Your task to perform on an android device: change notification settings in the gmail app Image 0: 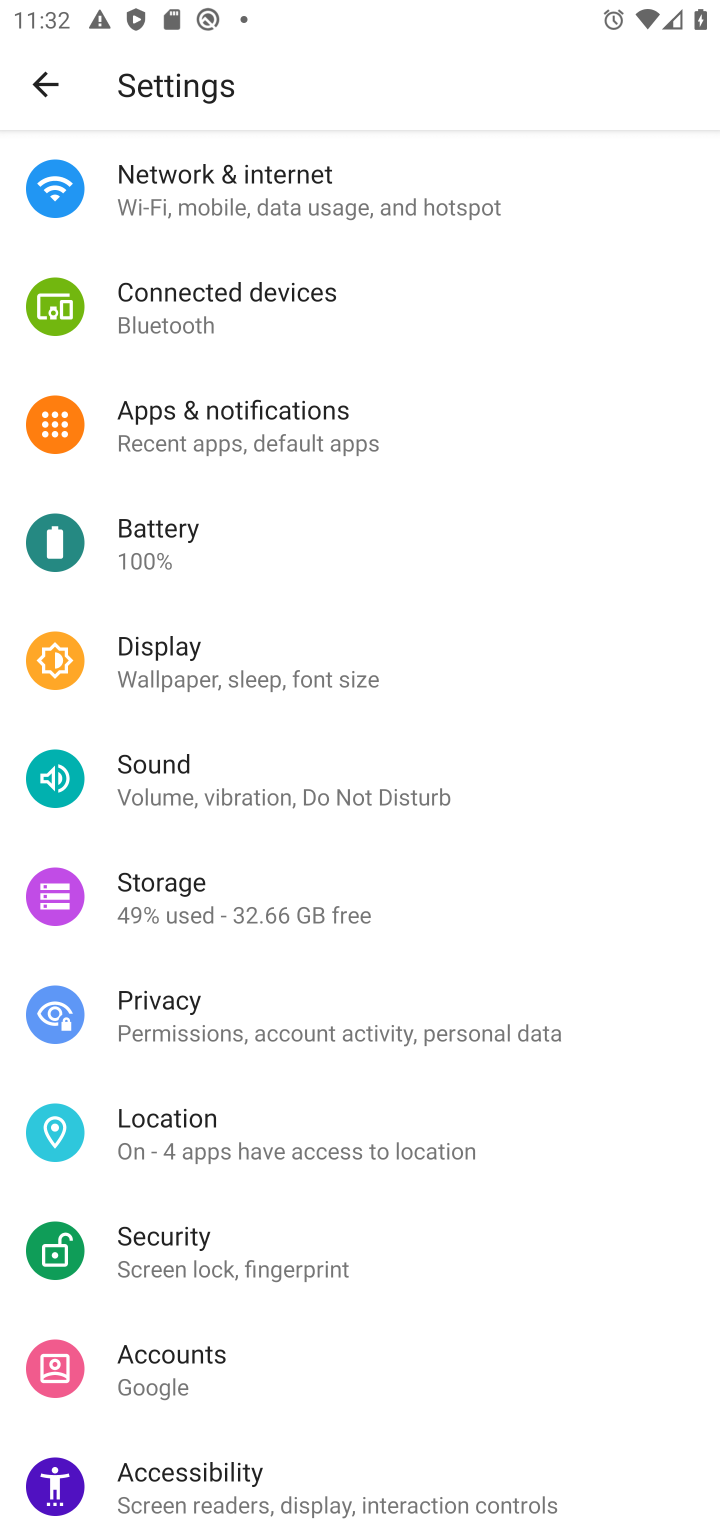
Step 0: press home button
Your task to perform on an android device: change notification settings in the gmail app Image 1: 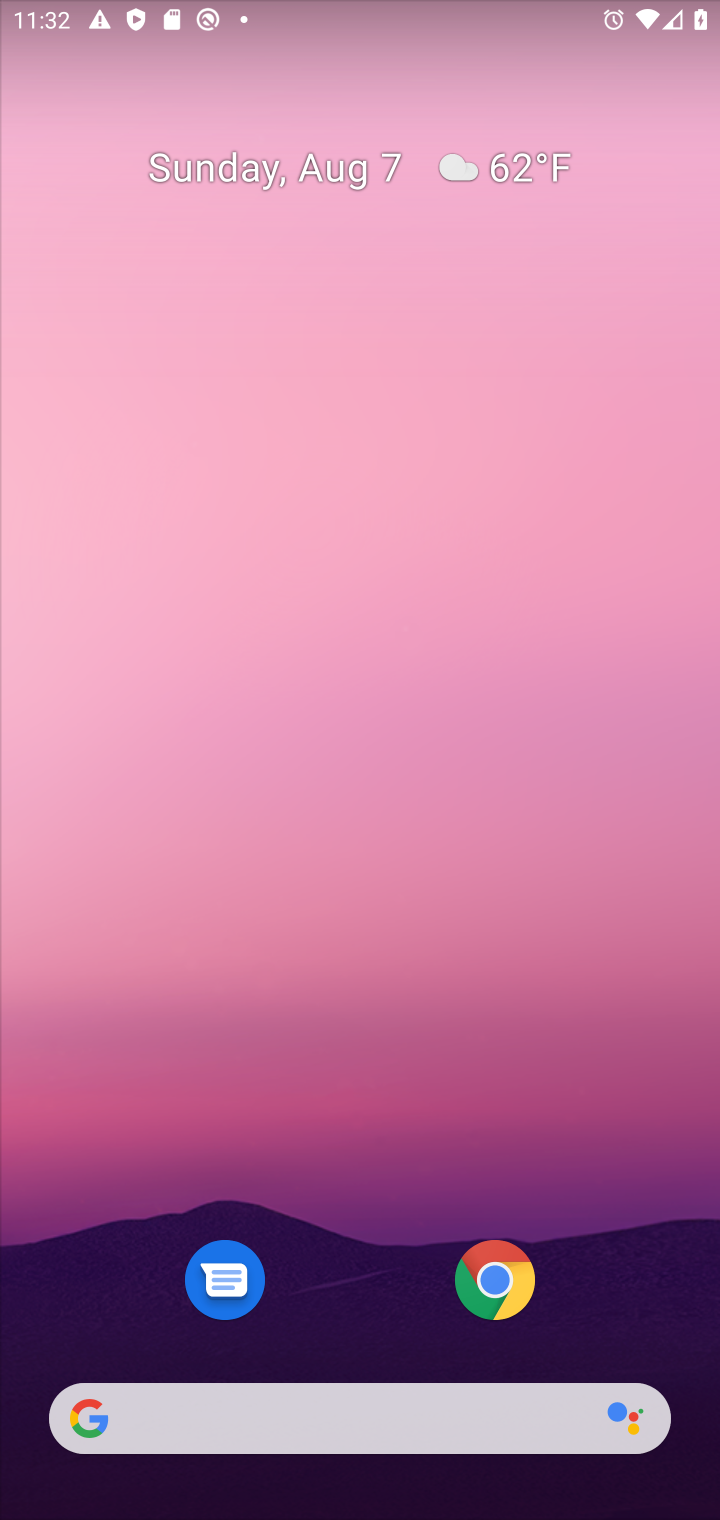
Step 1: drag from (365, 949) to (365, 309)
Your task to perform on an android device: change notification settings in the gmail app Image 2: 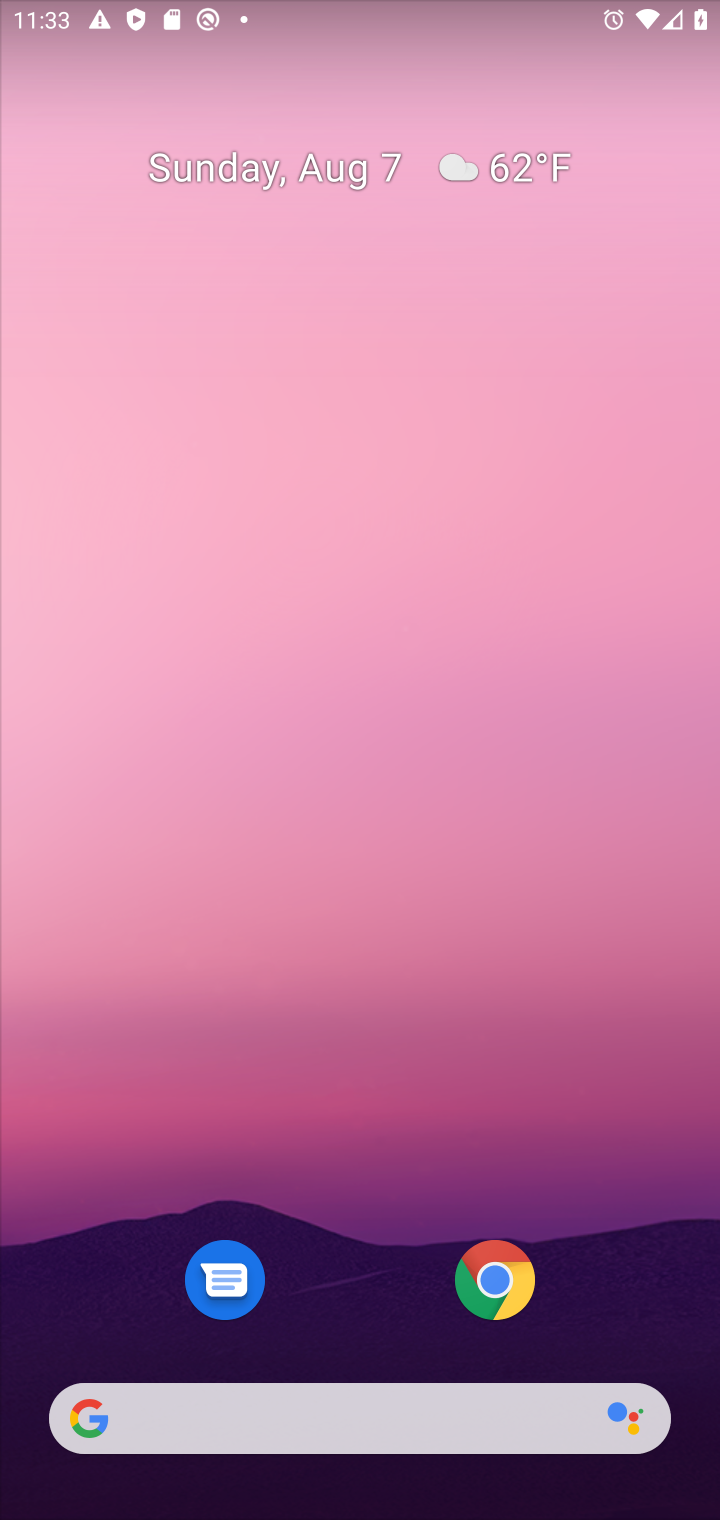
Step 2: click (426, 175)
Your task to perform on an android device: change notification settings in the gmail app Image 3: 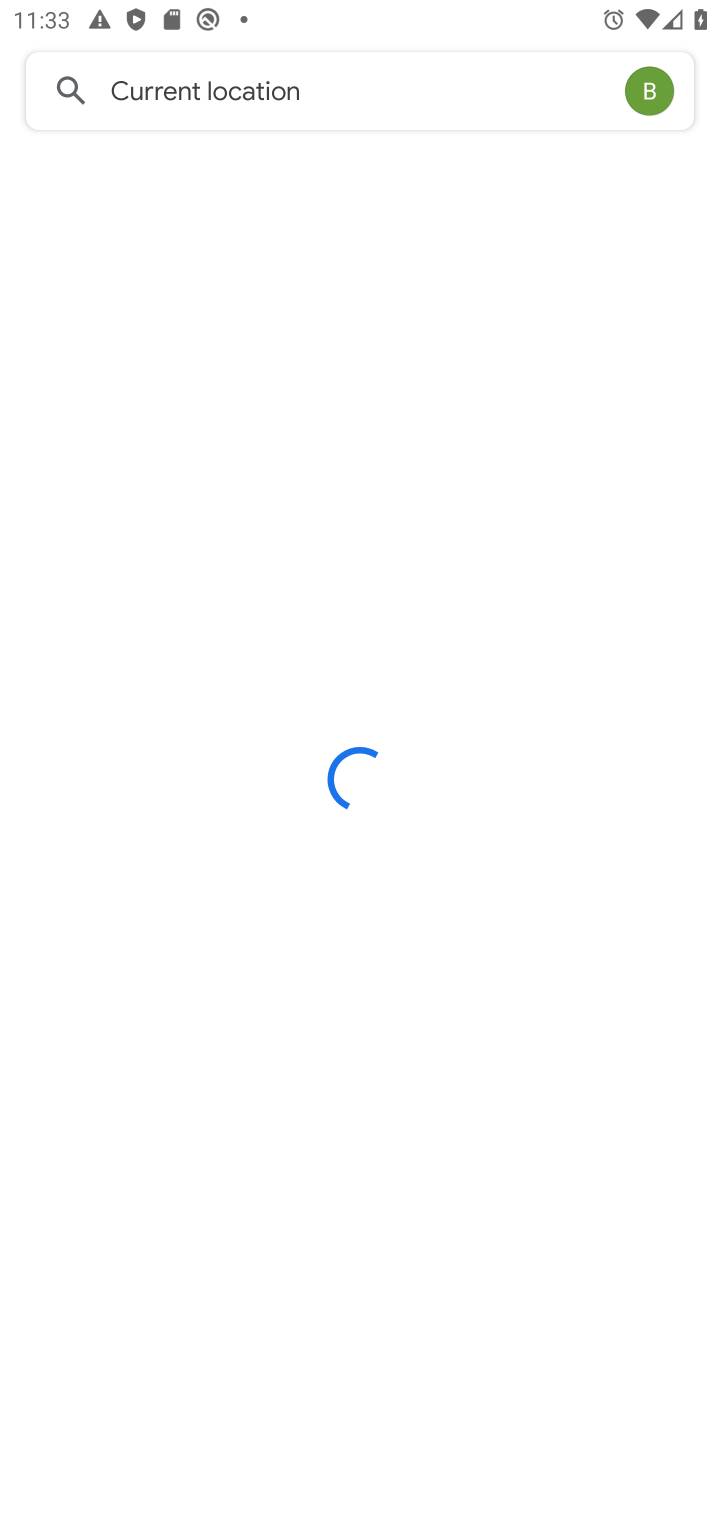
Step 3: press home button
Your task to perform on an android device: change notification settings in the gmail app Image 4: 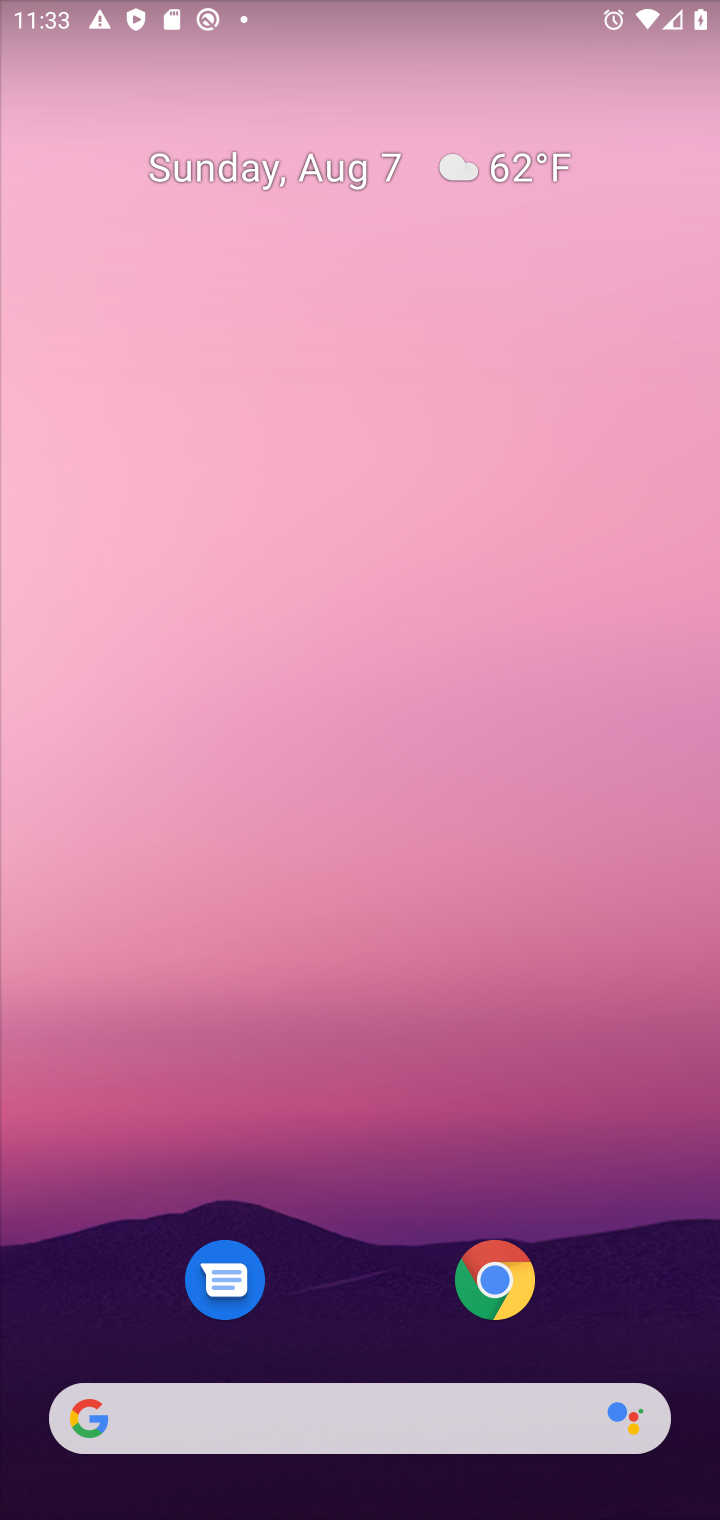
Step 4: drag from (344, 1304) to (339, 227)
Your task to perform on an android device: change notification settings in the gmail app Image 5: 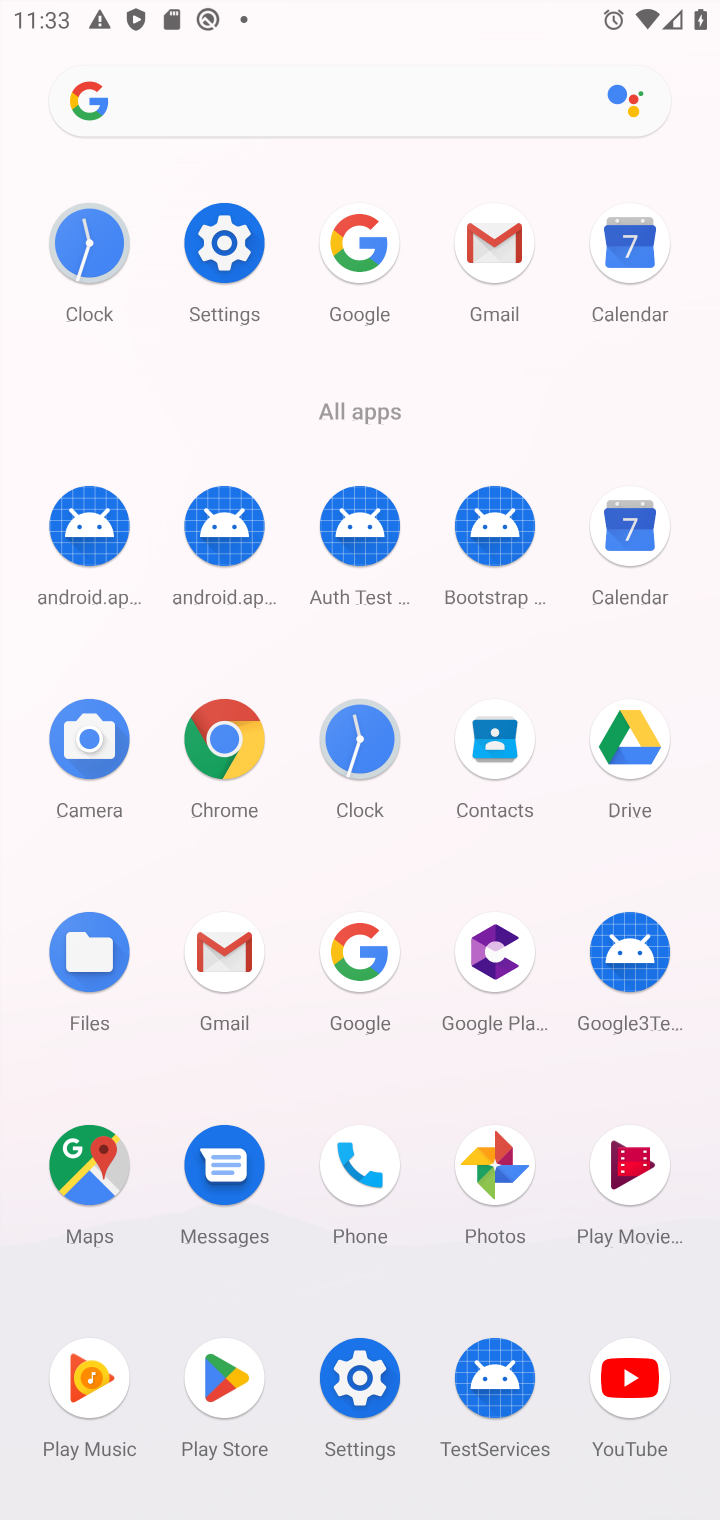
Step 5: click (211, 945)
Your task to perform on an android device: change notification settings in the gmail app Image 6: 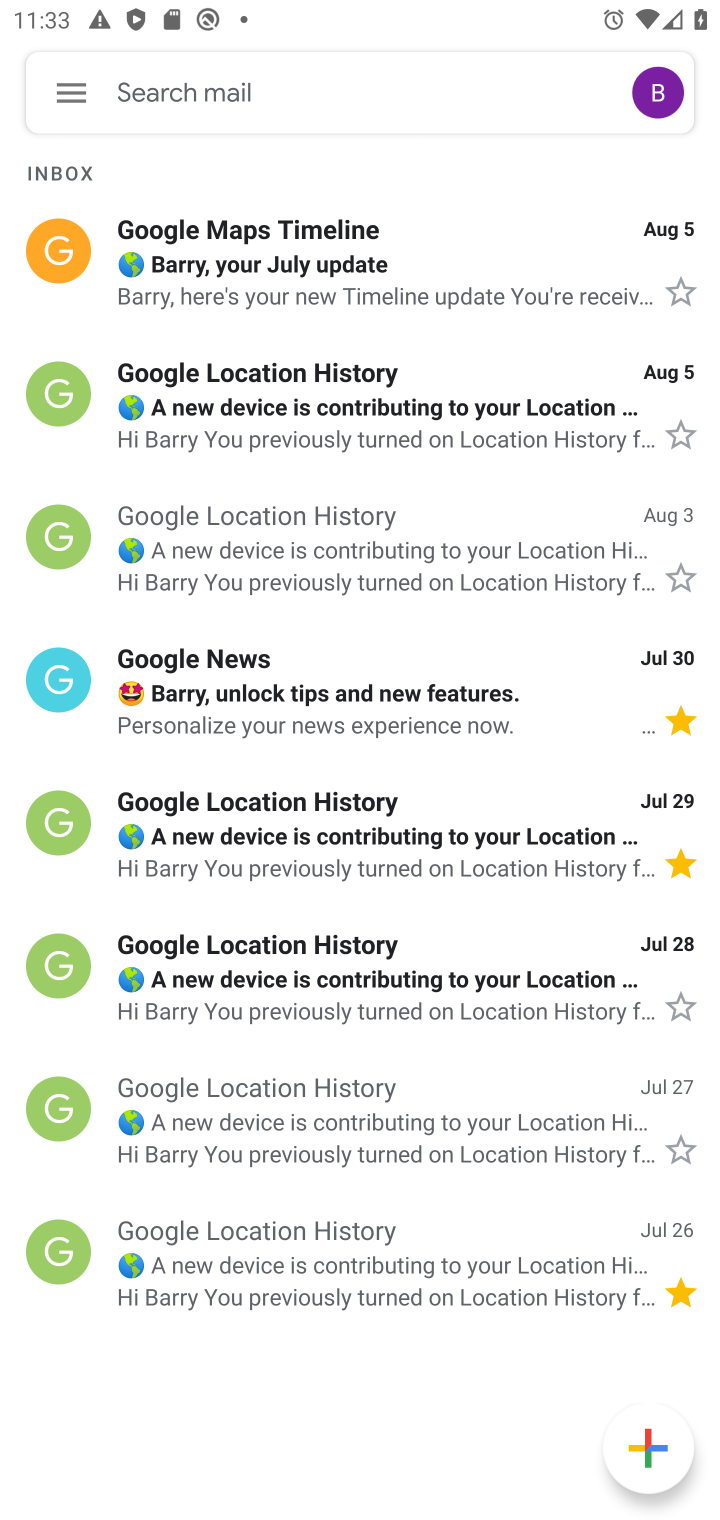
Step 6: click (63, 99)
Your task to perform on an android device: change notification settings in the gmail app Image 7: 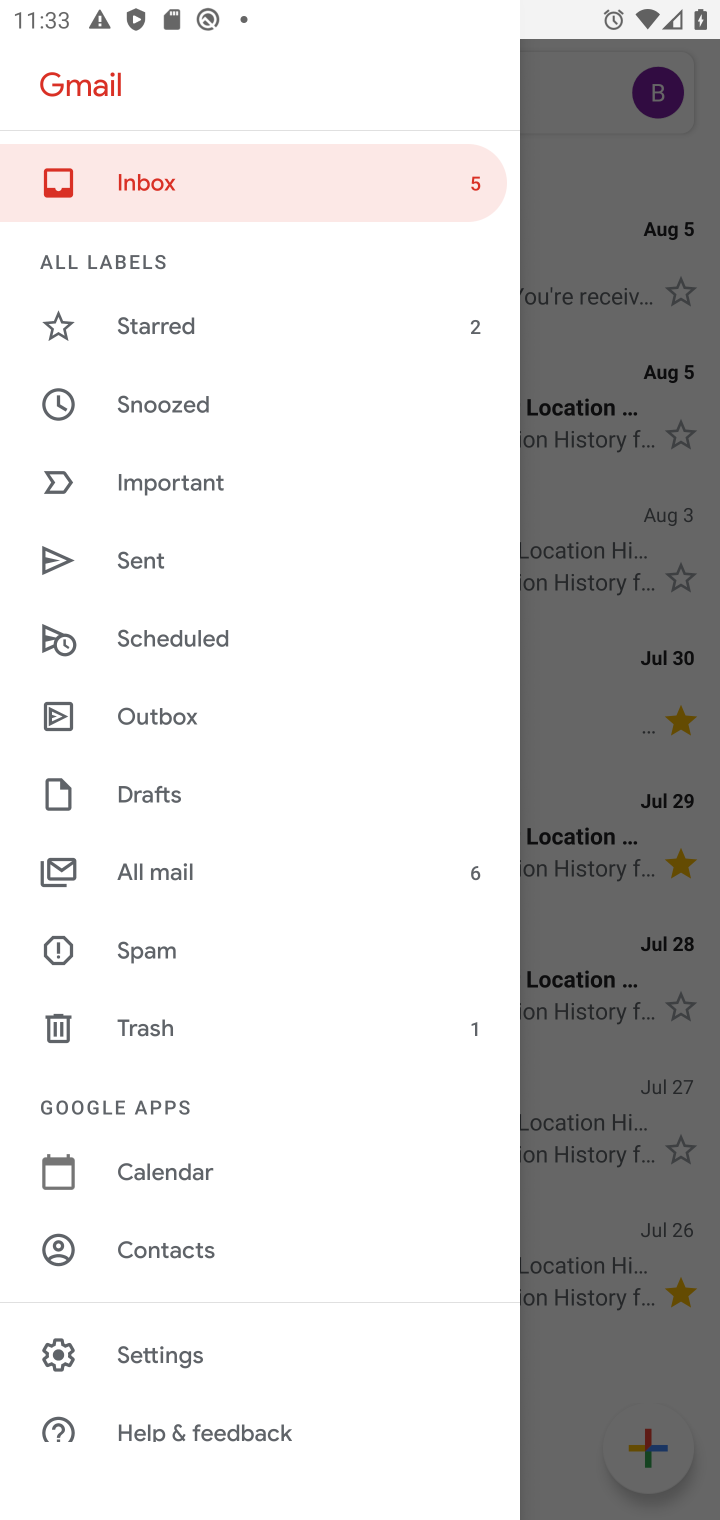
Step 7: click (139, 1353)
Your task to perform on an android device: change notification settings in the gmail app Image 8: 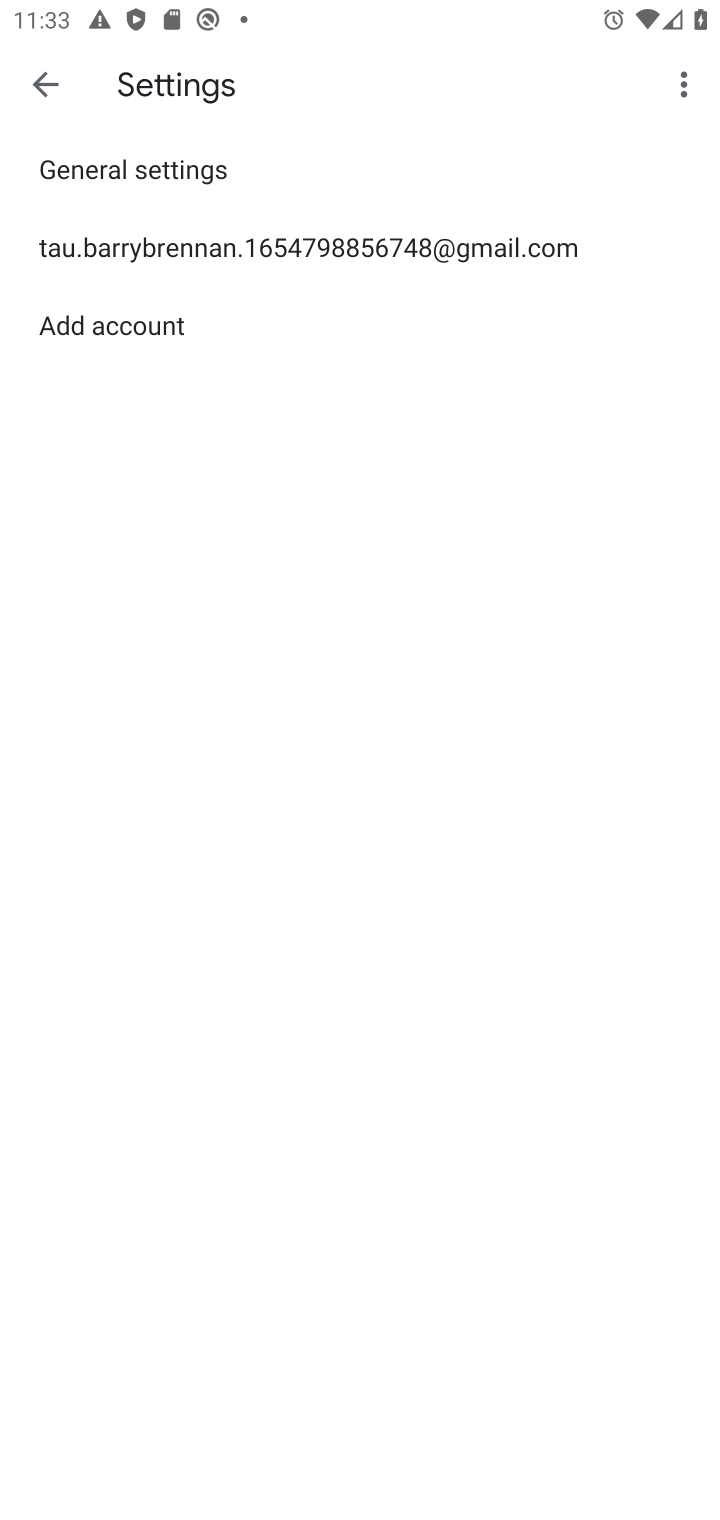
Step 8: click (367, 252)
Your task to perform on an android device: change notification settings in the gmail app Image 9: 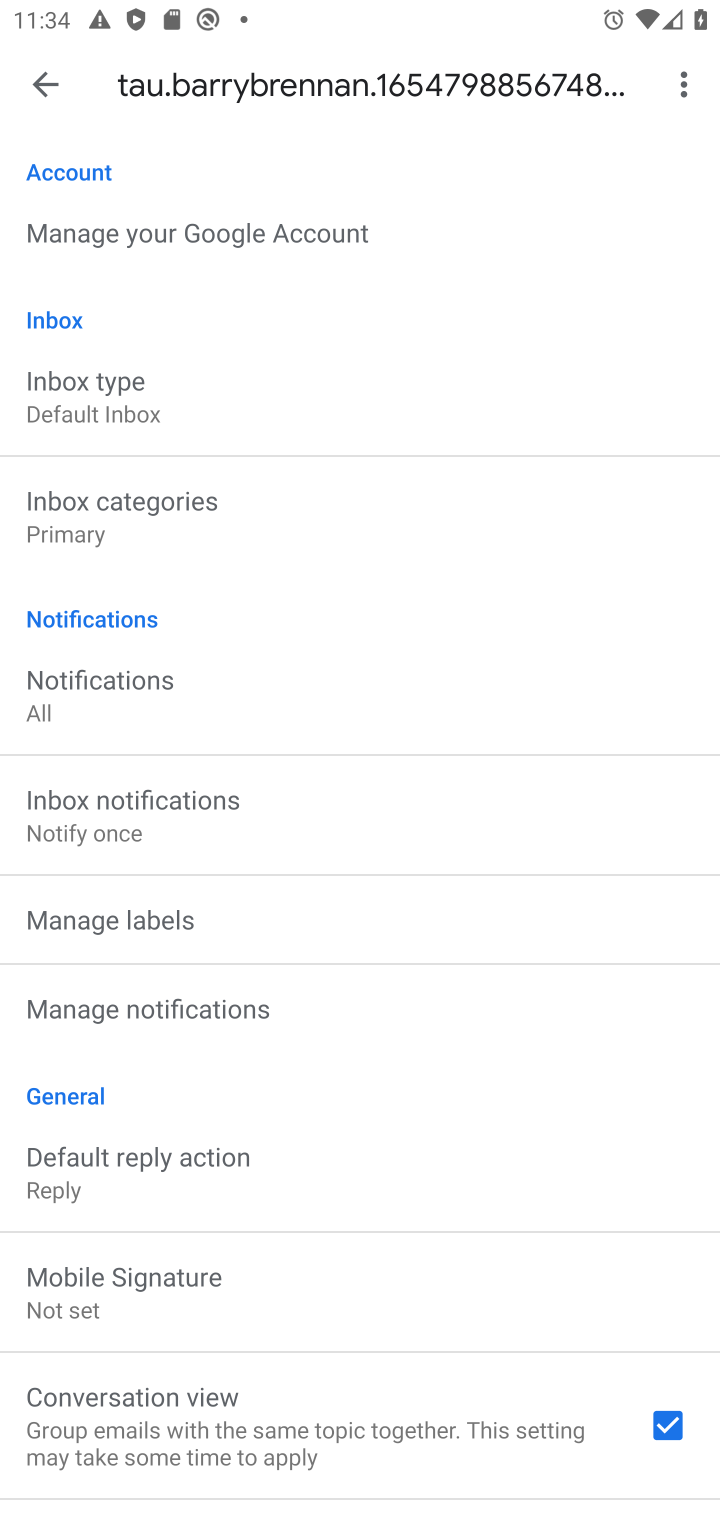
Step 9: click (85, 679)
Your task to perform on an android device: change notification settings in the gmail app Image 10: 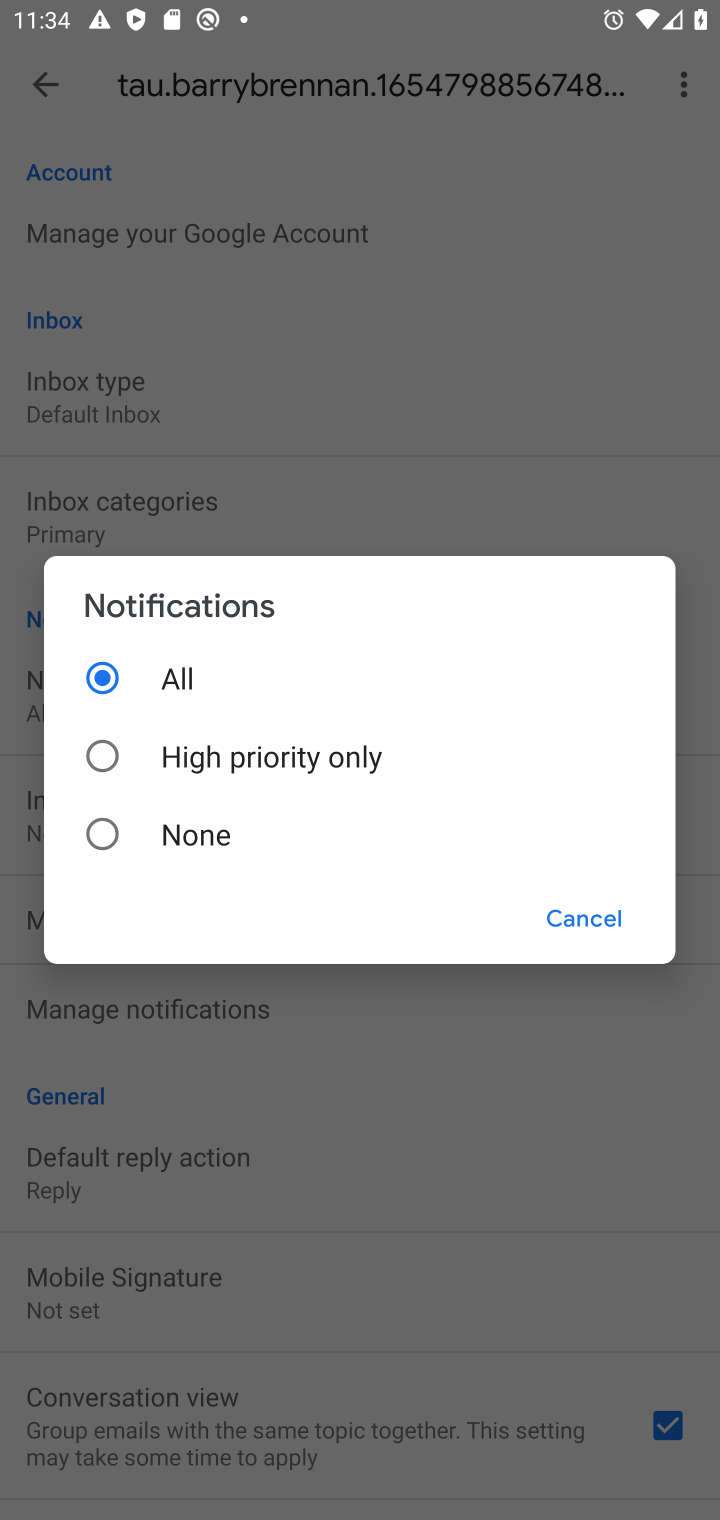
Step 10: click (103, 846)
Your task to perform on an android device: change notification settings in the gmail app Image 11: 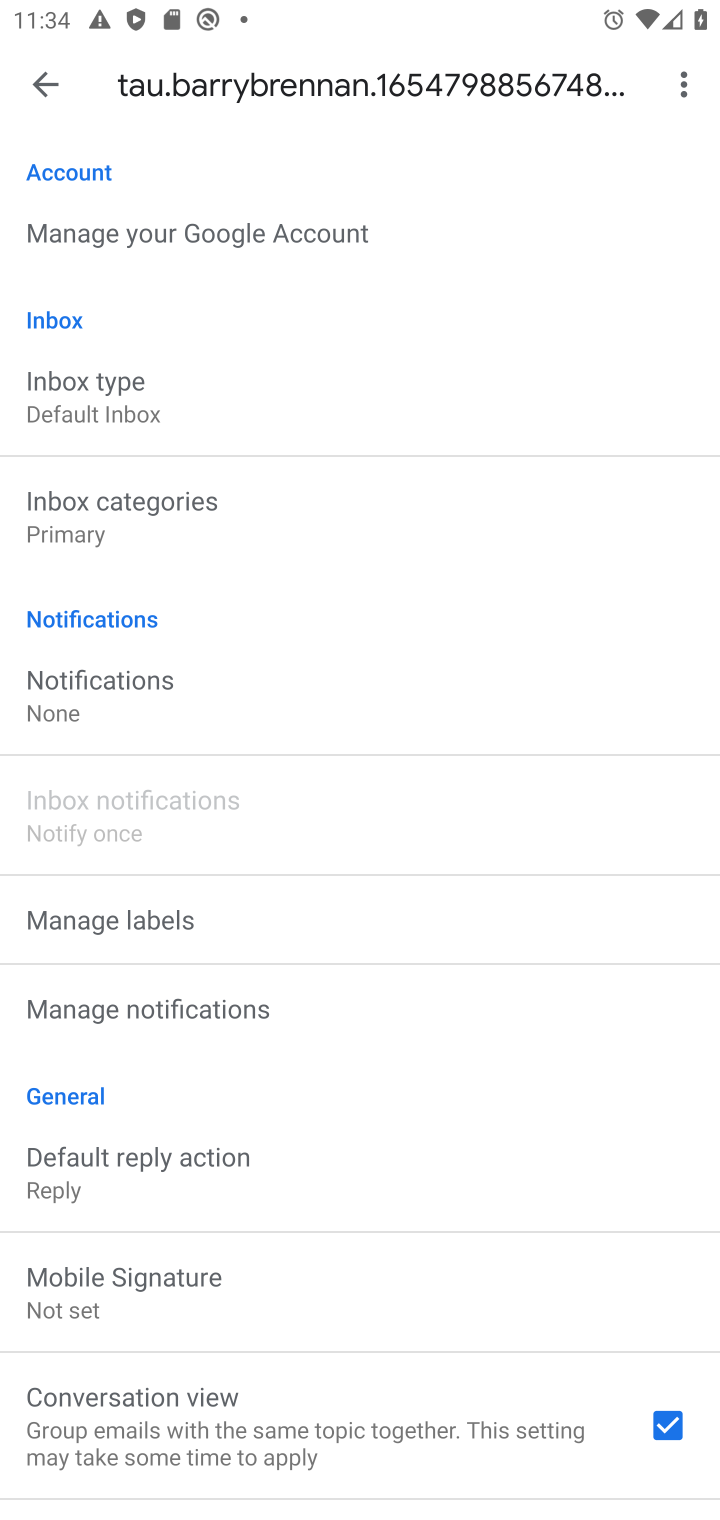
Step 11: click (87, 694)
Your task to perform on an android device: change notification settings in the gmail app Image 12: 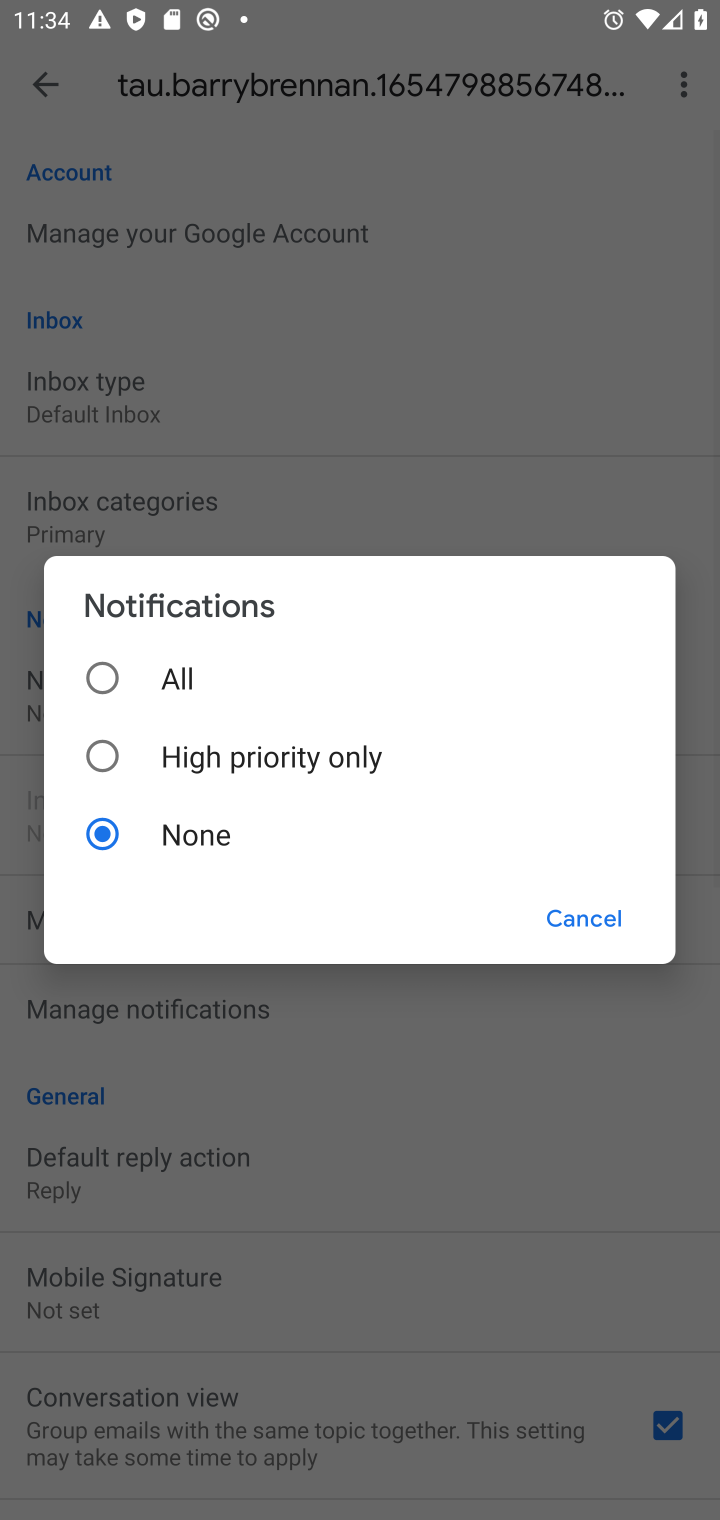
Step 12: click (102, 760)
Your task to perform on an android device: change notification settings in the gmail app Image 13: 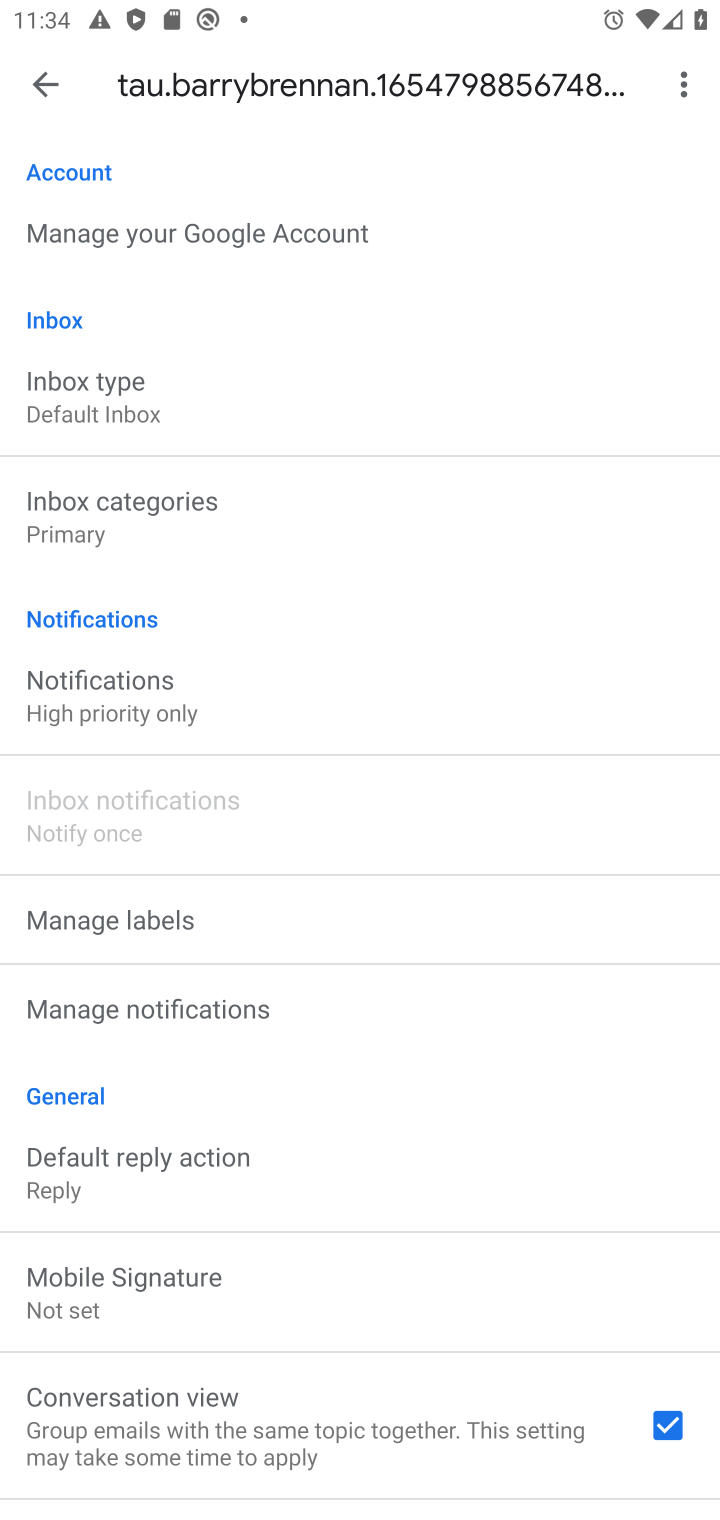
Step 13: task complete